Your task to perform on an android device: read, delete, or share a saved page in the chrome app Image 0: 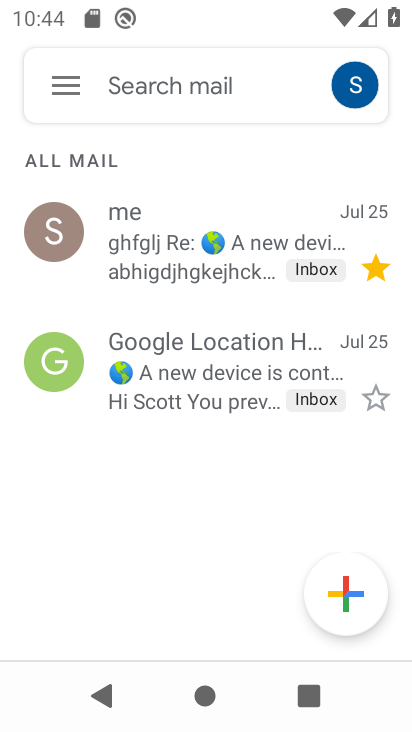
Step 0: press back button
Your task to perform on an android device: read, delete, or share a saved page in the chrome app Image 1: 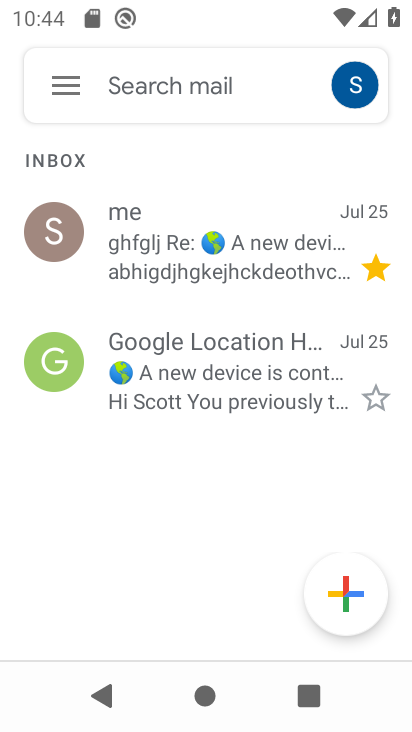
Step 1: press back button
Your task to perform on an android device: read, delete, or share a saved page in the chrome app Image 2: 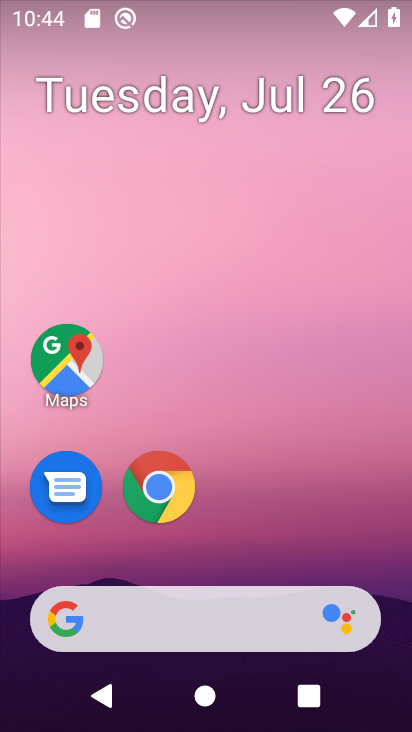
Step 2: click (158, 482)
Your task to perform on an android device: read, delete, or share a saved page in the chrome app Image 3: 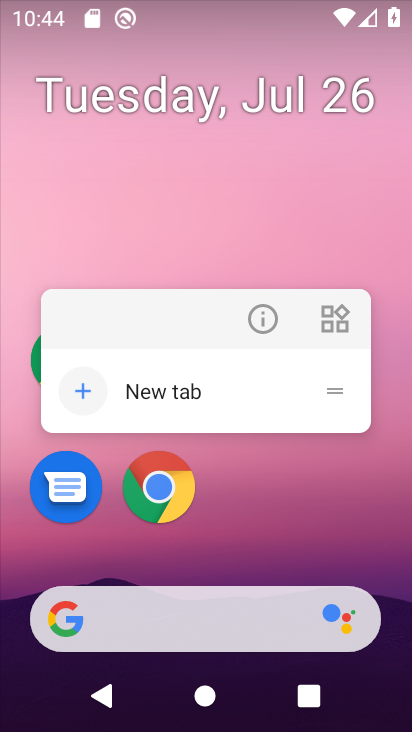
Step 3: click (159, 481)
Your task to perform on an android device: read, delete, or share a saved page in the chrome app Image 4: 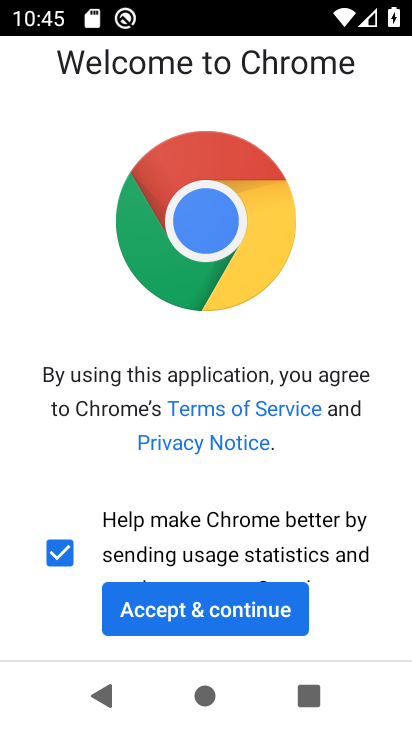
Step 4: click (244, 615)
Your task to perform on an android device: read, delete, or share a saved page in the chrome app Image 5: 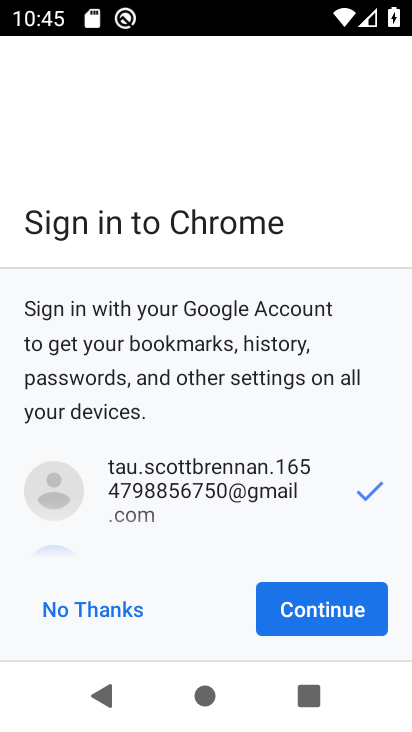
Step 5: click (325, 611)
Your task to perform on an android device: read, delete, or share a saved page in the chrome app Image 6: 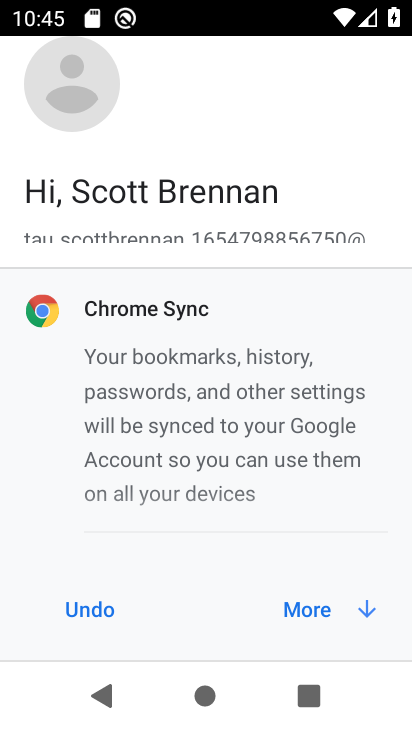
Step 6: click (323, 611)
Your task to perform on an android device: read, delete, or share a saved page in the chrome app Image 7: 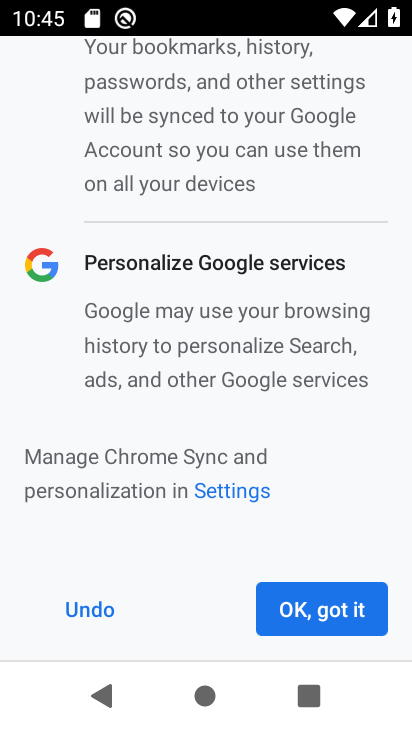
Step 7: click (323, 616)
Your task to perform on an android device: read, delete, or share a saved page in the chrome app Image 8: 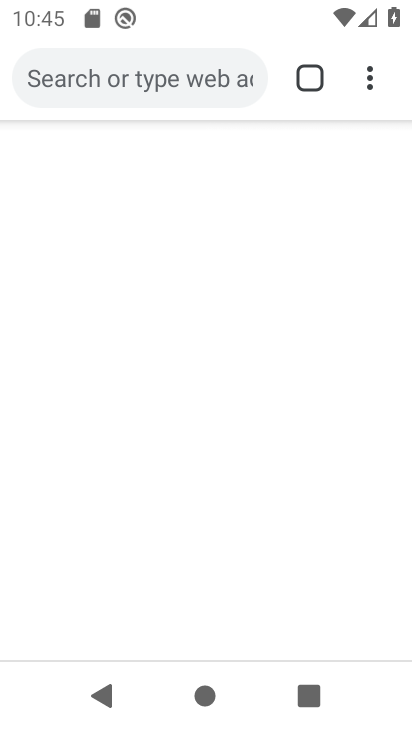
Step 8: drag from (370, 79) to (154, 519)
Your task to perform on an android device: read, delete, or share a saved page in the chrome app Image 9: 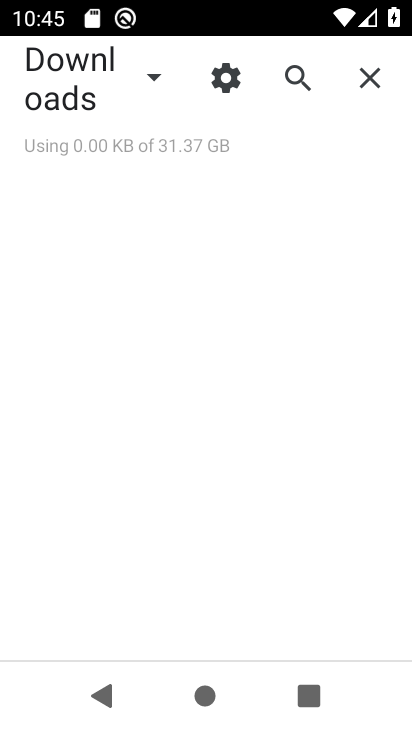
Step 9: click (138, 73)
Your task to perform on an android device: read, delete, or share a saved page in the chrome app Image 10: 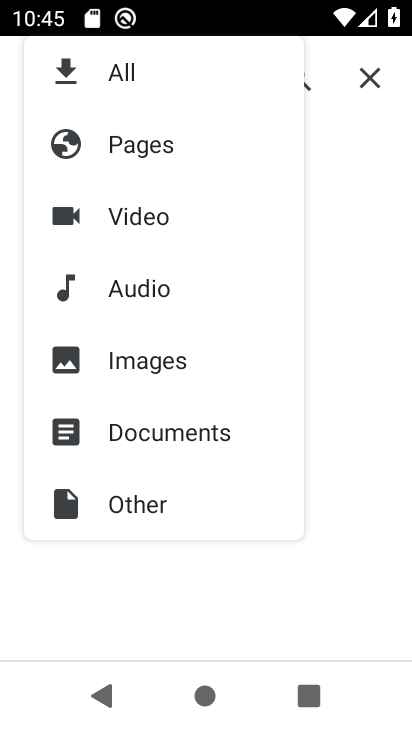
Step 10: click (131, 155)
Your task to perform on an android device: read, delete, or share a saved page in the chrome app Image 11: 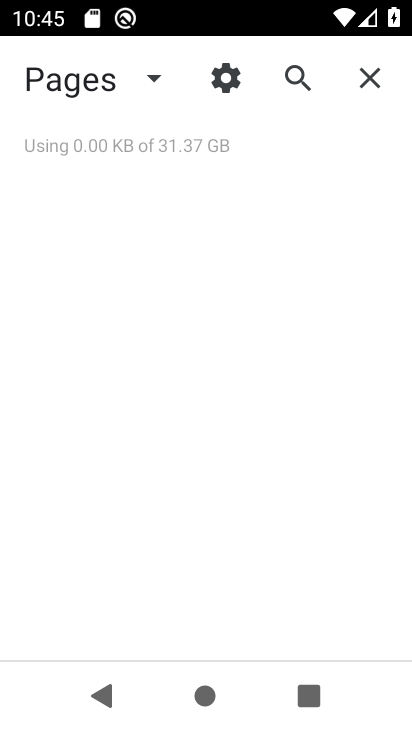
Step 11: task complete